Your task to perform on an android device: move an email to a new category in the gmail app Image 0: 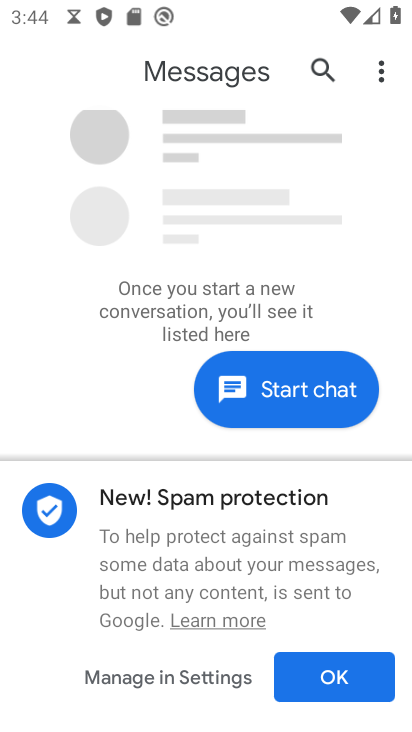
Step 0: press home button
Your task to perform on an android device: move an email to a new category in the gmail app Image 1: 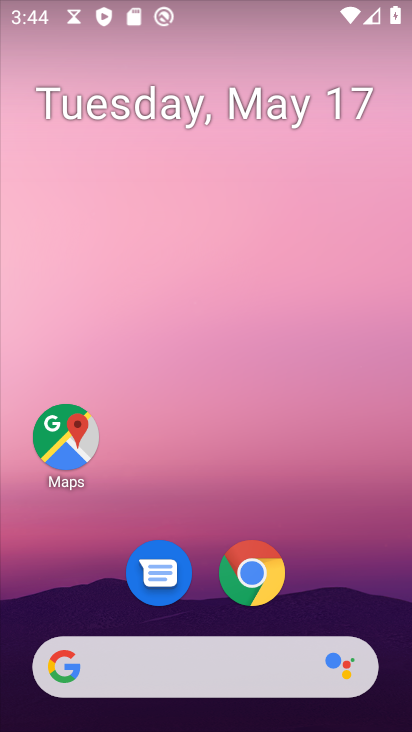
Step 1: drag from (360, 611) to (274, 66)
Your task to perform on an android device: move an email to a new category in the gmail app Image 2: 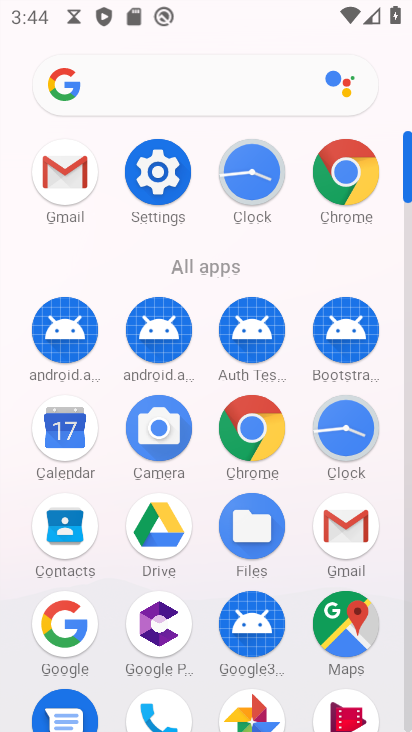
Step 2: click (74, 176)
Your task to perform on an android device: move an email to a new category in the gmail app Image 3: 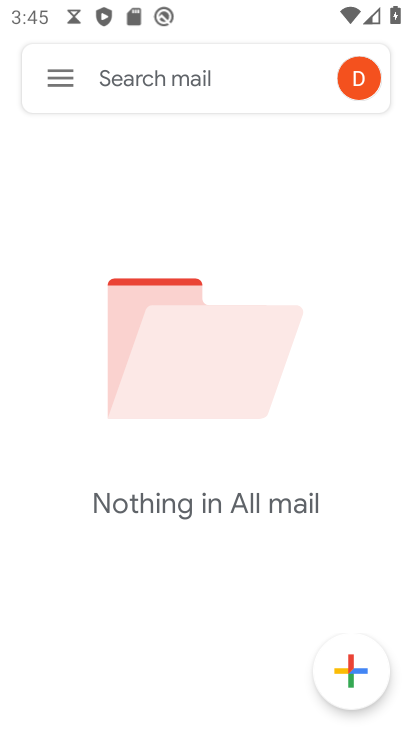
Step 3: task complete